Your task to perform on an android device: turn off sleep mode Image 0: 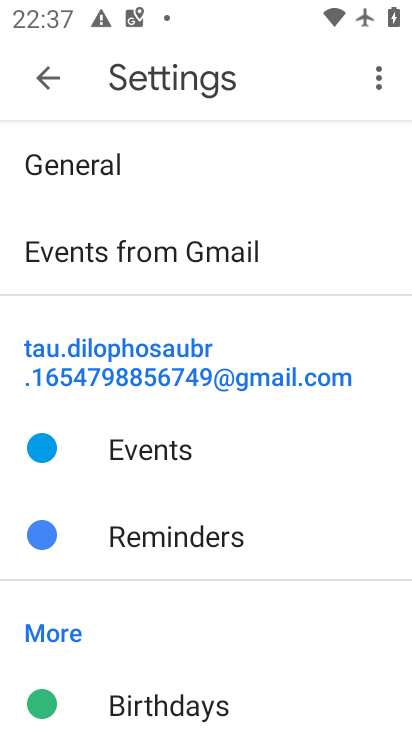
Step 0: press home button
Your task to perform on an android device: turn off sleep mode Image 1: 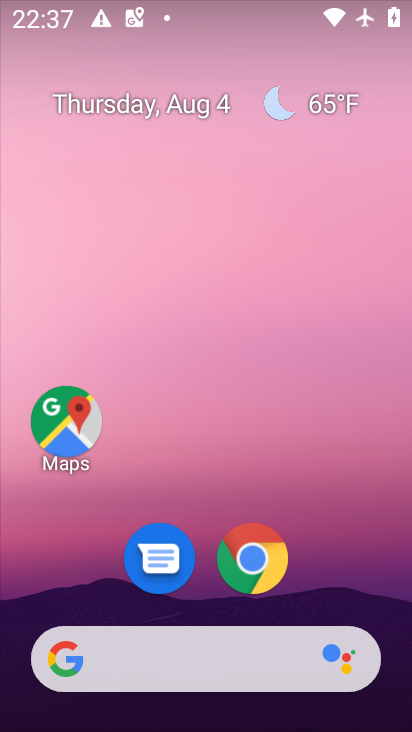
Step 1: drag from (340, 600) to (321, 120)
Your task to perform on an android device: turn off sleep mode Image 2: 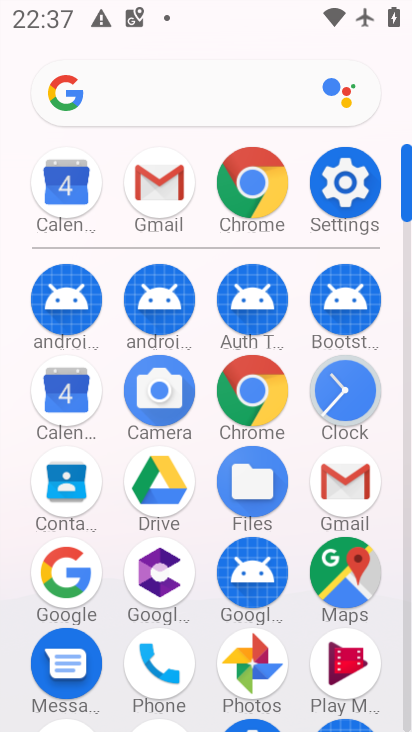
Step 2: click (355, 175)
Your task to perform on an android device: turn off sleep mode Image 3: 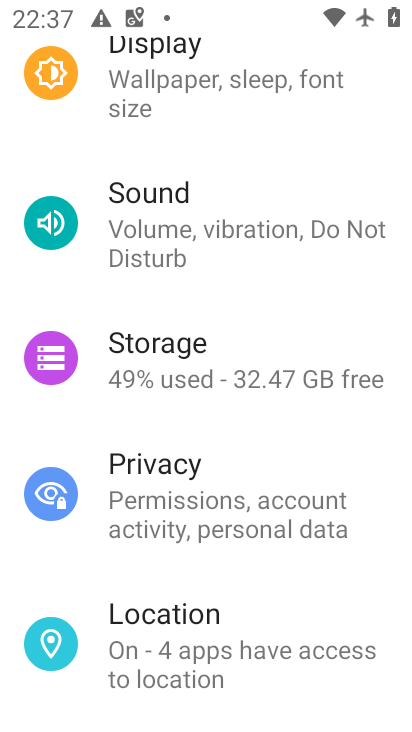
Step 3: click (228, 92)
Your task to perform on an android device: turn off sleep mode Image 4: 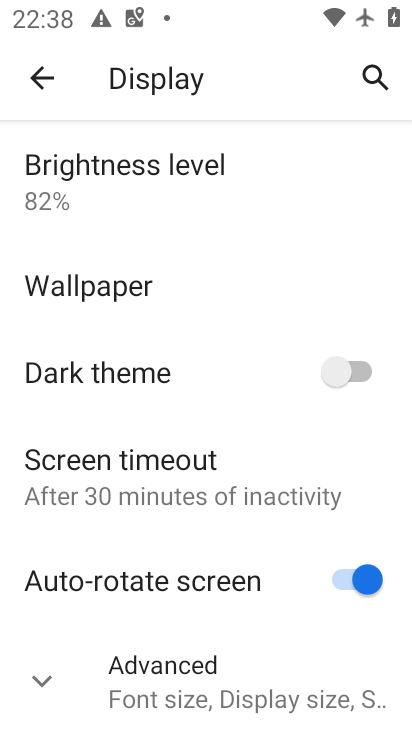
Step 4: drag from (157, 189) to (180, 592)
Your task to perform on an android device: turn off sleep mode Image 5: 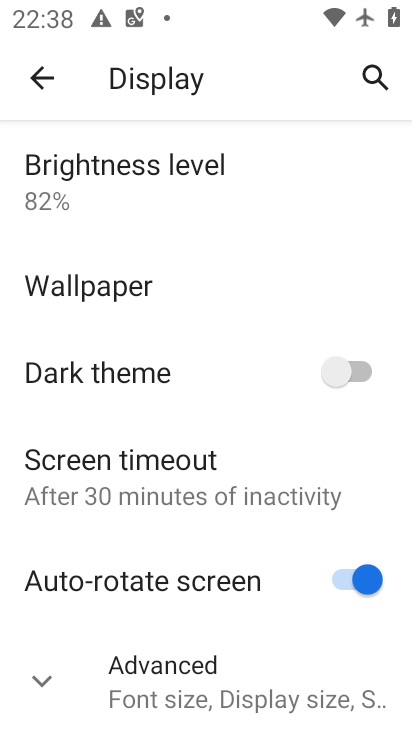
Step 5: click (228, 506)
Your task to perform on an android device: turn off sleep mode Image 6: 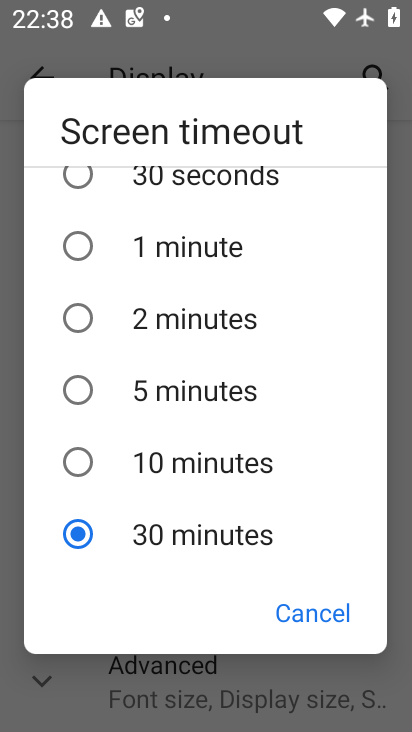
Step 6: task complete